Your task to perform on an android device: change the clock display to analog Image 0: 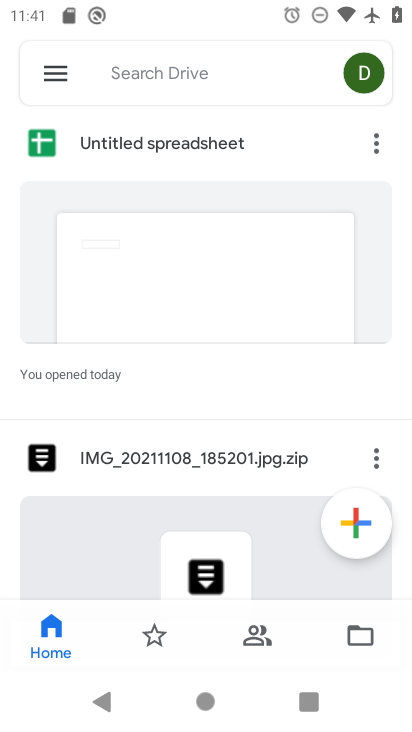
Step 0: press home button
Your task to perform on an android device: change the clock display to analog Image 1: 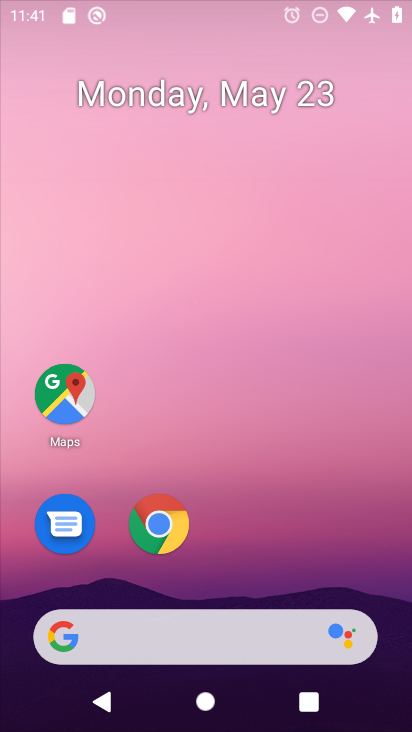
Step 1: drag from (255, 568) to (273, 103)
Your task to perform on an android device: change the clock display to analog Image 2: 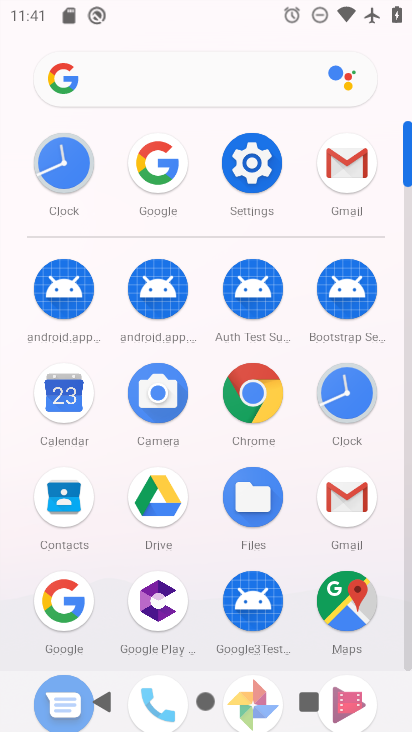
Step 2: click (357, 379)
Your task to perform on an android device: change the clock display to analog Image 3: 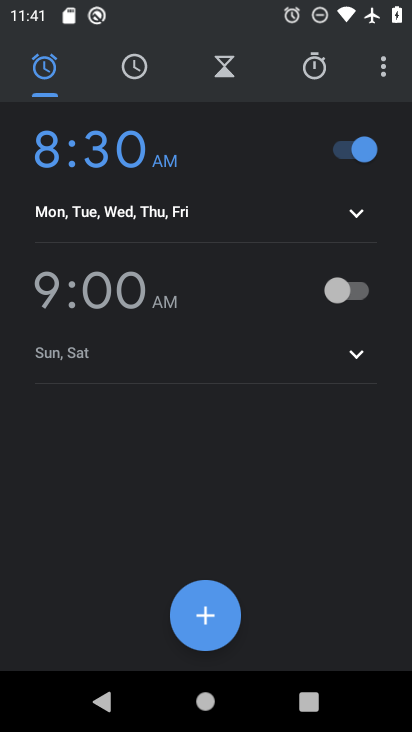
Step 3: click (384, 69)
Your task to perform on an android device: change the clock display to analog Image 4: 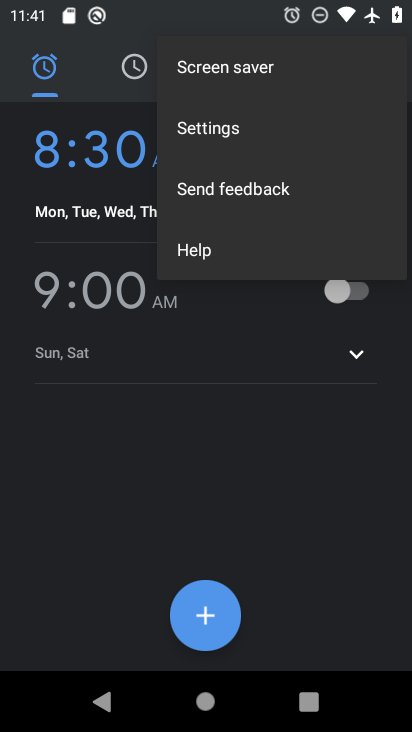
Step 4: click (242, 130)
Your task to perform on an android device: change the clock display to analog Image 5: 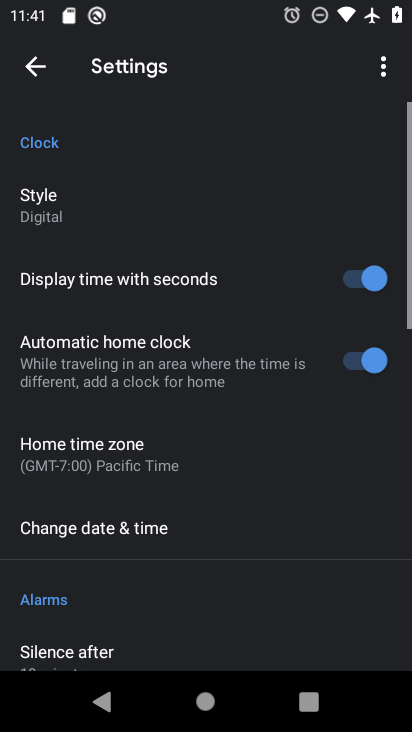
Step 5: click (90, 196)
Your task to perform on an android device: change the clock display to analog Image 6: 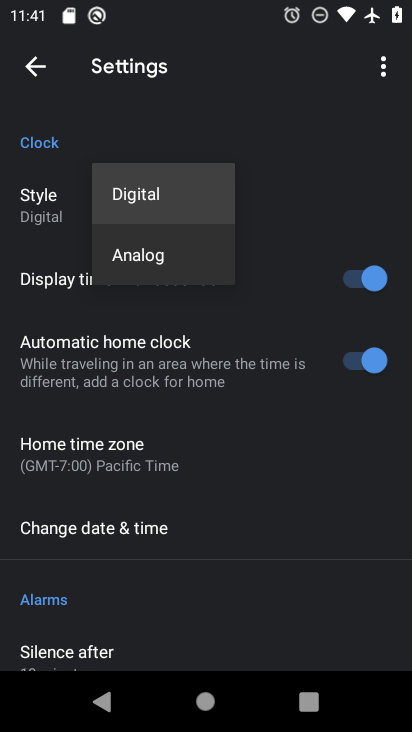
Step 6: click (147, 234)
Your task to perform on an android device: change the clock display to analog Image 7: 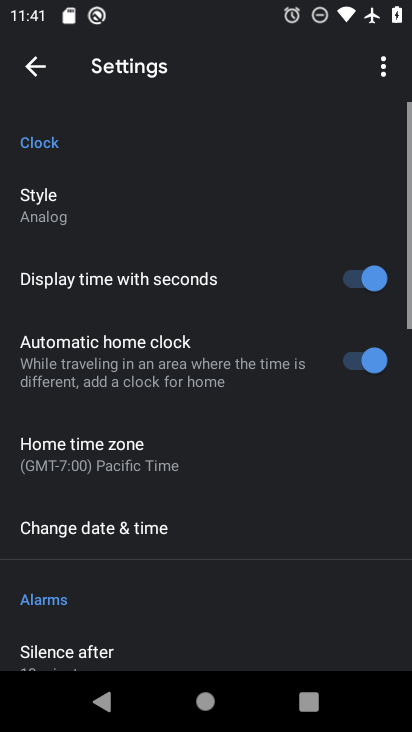
Step 7: task complete